Your task to perform on an android device: Open wifi settings Image 0: 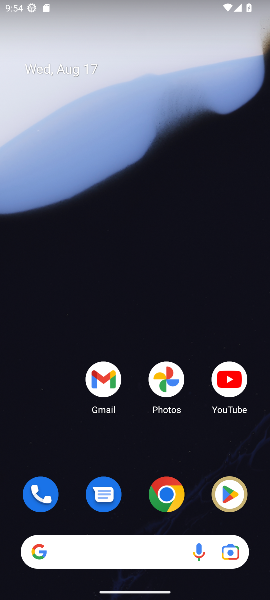
Step 0: drag from (182, 3) to (150, 440)
Your task to perform on an android device: Open wifi settings Image 1: 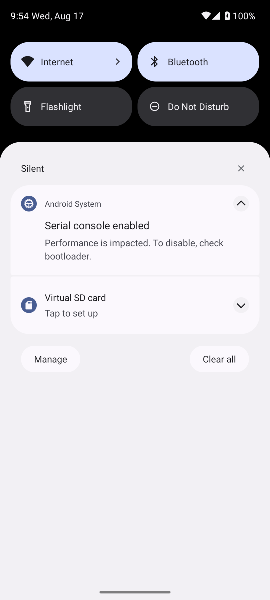
Step 1: click (46, 53)
Your task to perform on an android device: Open wifi settings Image 2: 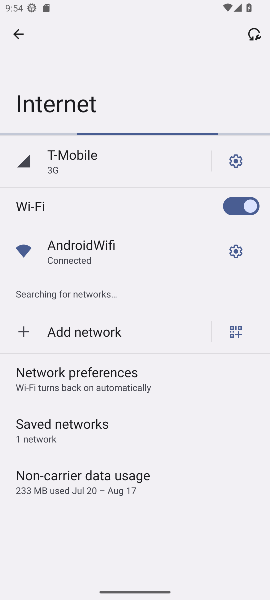
Step 2: task complete